Your task to perform on an android device: turn off javascript in the chrome app Image 0: 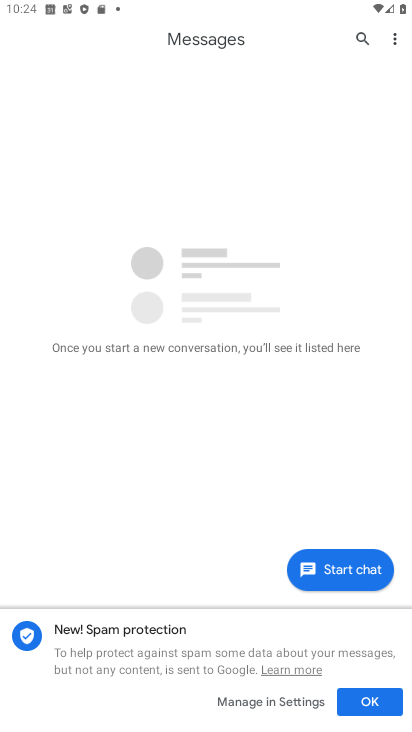
Step 0: press home button
Your task to perform on an android device: turn off javascript in the chrome app Image 1: 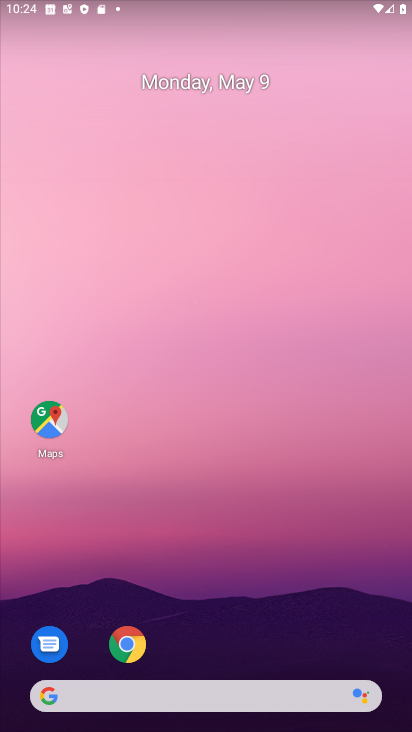
Step 1: click (148, 647)
Your task to perform on an android device: turn off javascript in the chrome app Image 2: 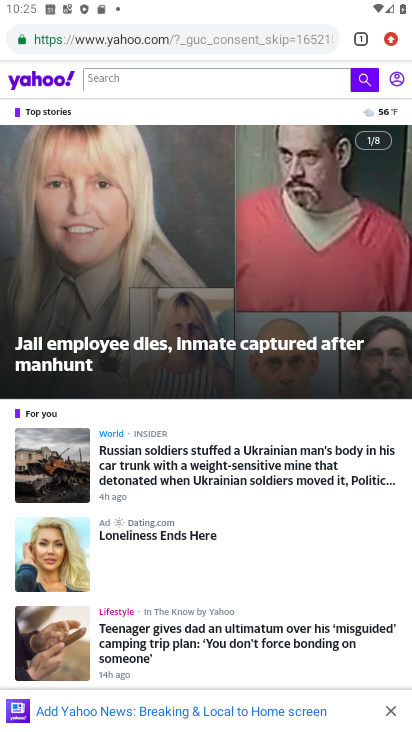
Step 2: click (394, 40)
Your task to perform on an android device: turn off javascript in the chrome app Image 3: 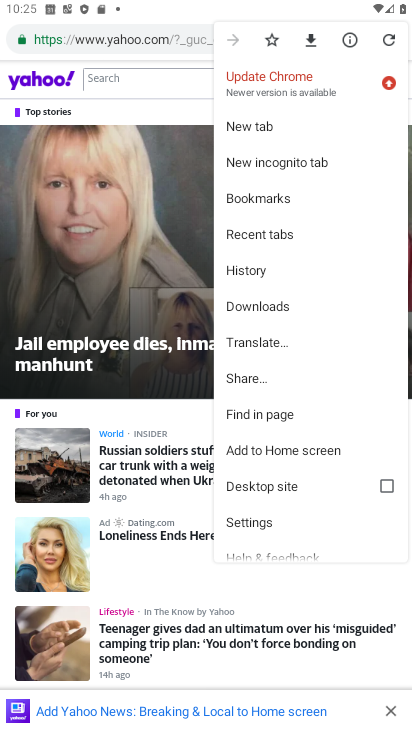
Step 3: click (268, 531)
Your task to perform on an android device: turn off javascript in the chrome app Image 4: 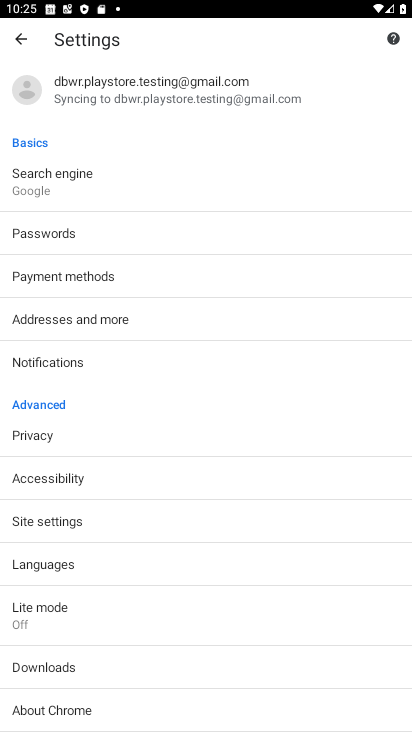
Step 4: click (63, 522)
Your task to perform on an android device: turn off javascript in the chrome app Image 5: 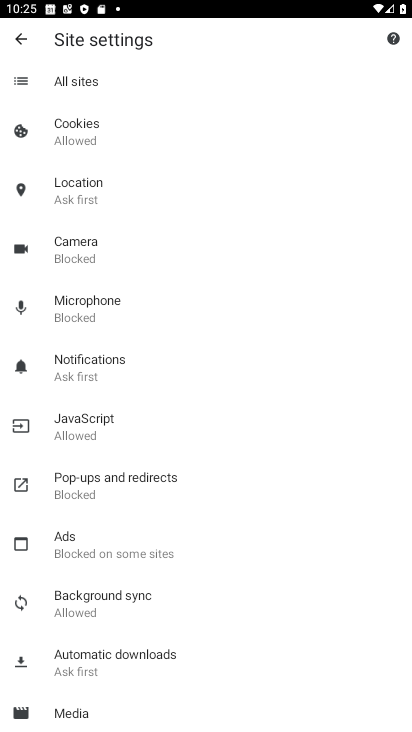
Step 5: drag from (104, 605) to (166, 238)
Your task to perform on an android device: turn off javascript in the chrome app Image 6: 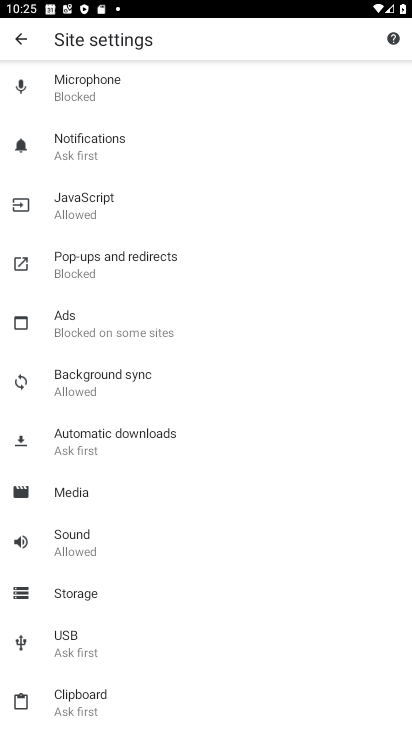
Step 6: click (118, 209)
Your task to perform on an android device: turn off javascript in the chrome app Image 7: 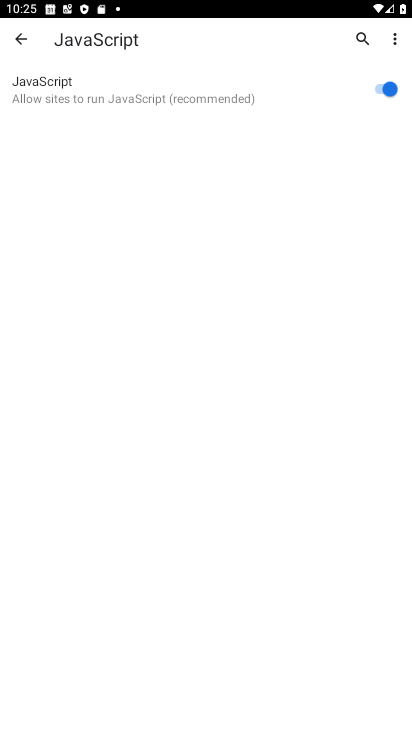
Step 7: click (362, 81)
Your task to perform on an android device: turn off javascript in the chrome app Image 8: 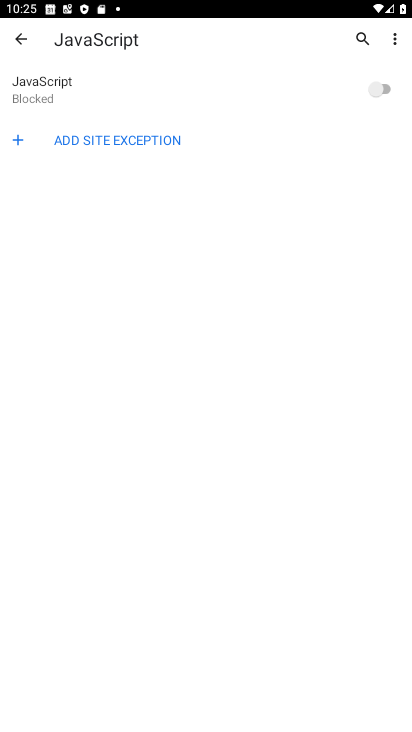
Step 8: task complete